Your task to perform on an android device: Do I have any events this weekend? Image 0: 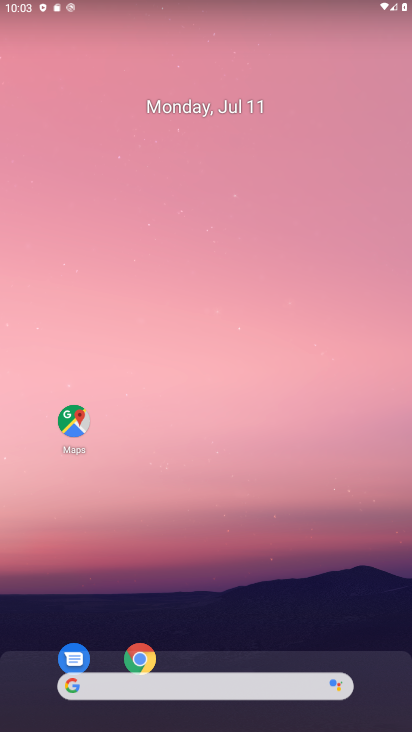
Step 0: drag from (203, 666) to (329, 132)
Your task to perform on an android device: Do I have any events this weekend? Image 1: 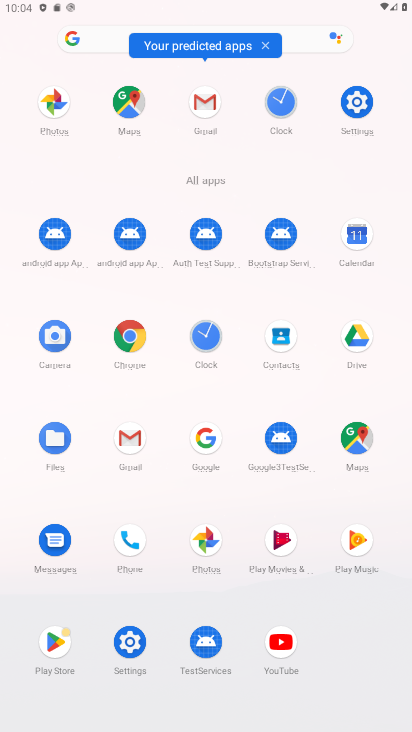
Step 1: click (355, 243)
Your task to perform on an android device: Do I have any events this weekend? Image 2: 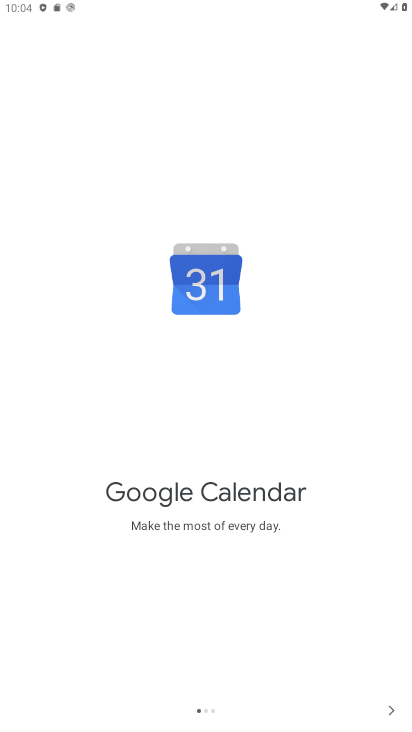
Step 2: click (388, 709)
Your task to perform on an android device: Do I have any events this weekend? Image 3: 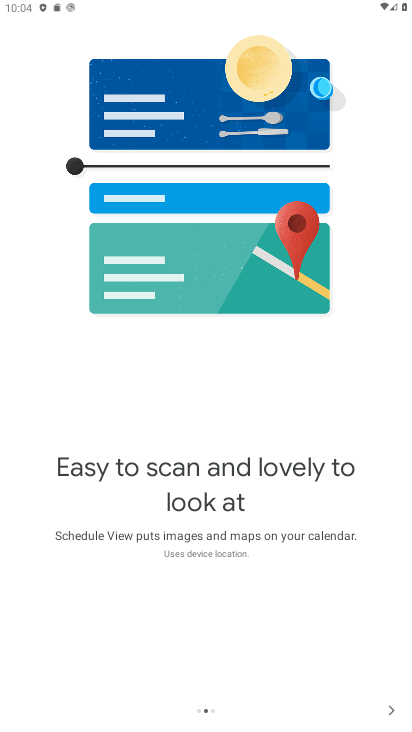
Step 3: click (391, 707)
Your task to perform on an android device: Do I have any events this weekend? Image 4: 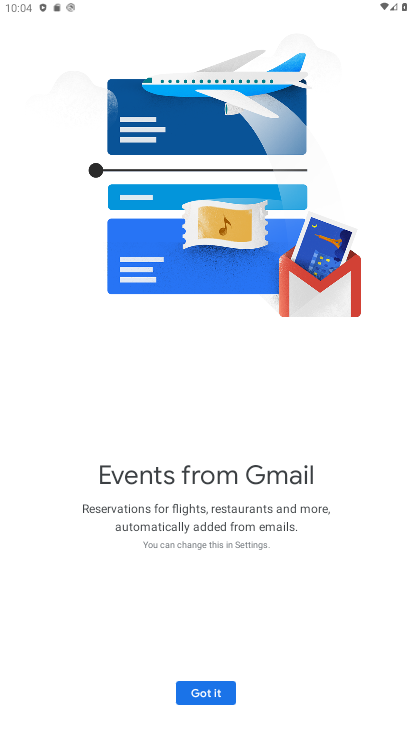
Step 4: click (227, 691)
Your task to perform on an android device: Do I have any events this weekend? Image 5: 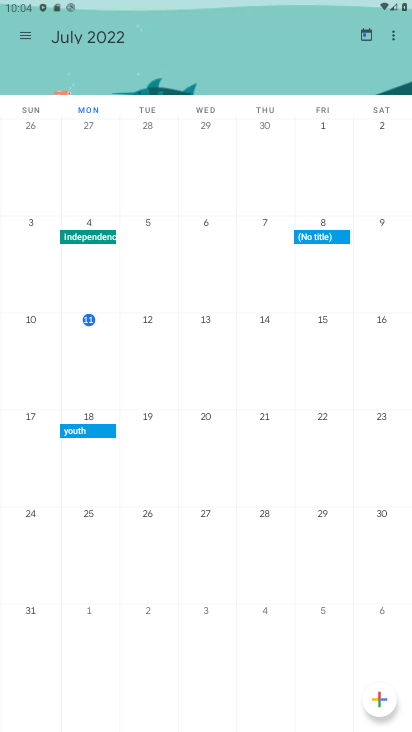
Step 5: click (35, 30)
Your task to perform on an android device: Do I have any events this weekend? Image 6: 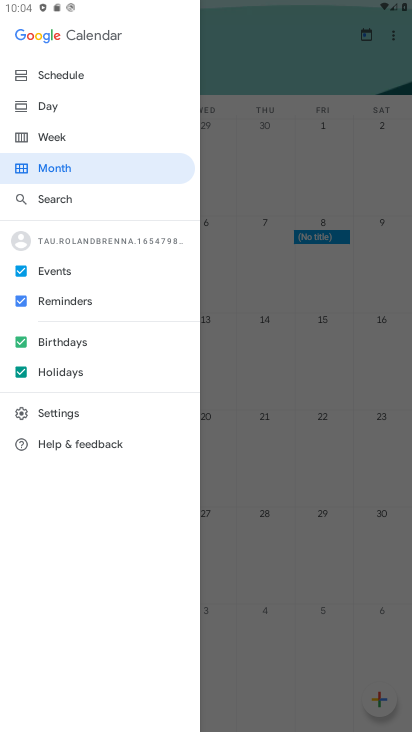
Step 6: click (69, 142)
Your task to perform on an android device: Do I have any events this weekend? Image 7: 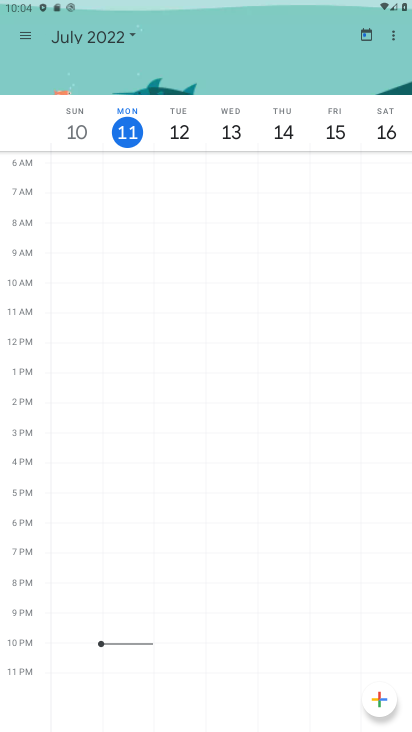
Step 7: task complete